Your task to perform on an android device: set the timer Image 0: 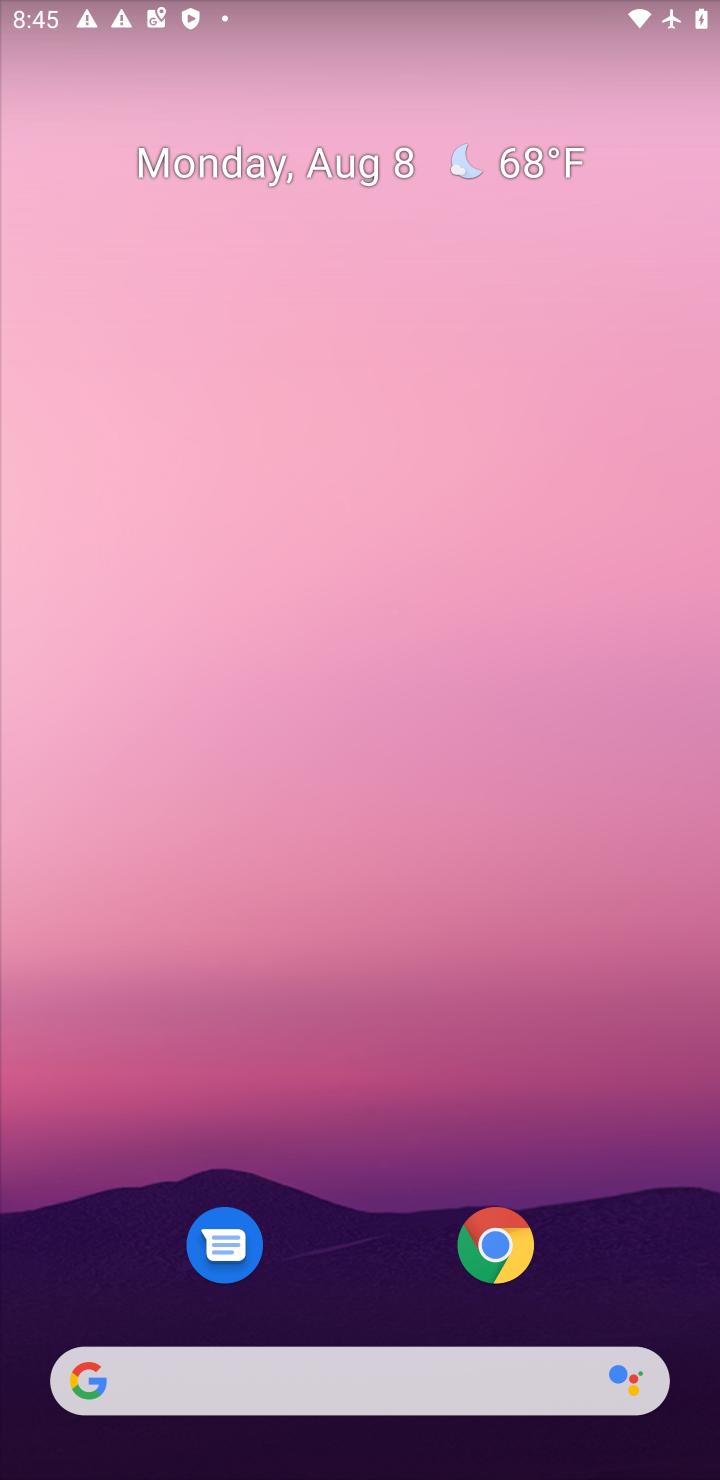
Step 0: click (355, 433)
Your task to perform on an android device: set the timer Image 1: 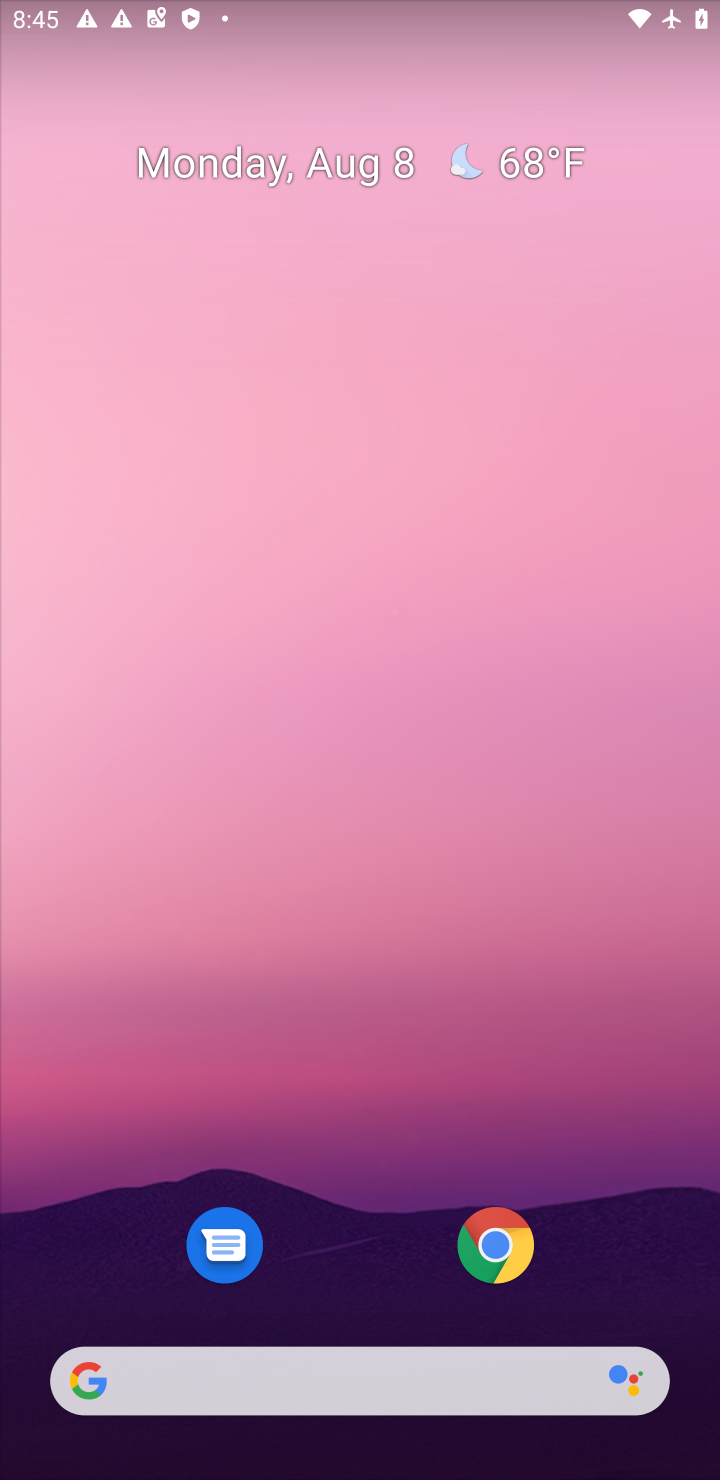
Step 1: drag from (335, 1035) to (377, 325)
Your task to perform on an android device: set the timer Image 2: 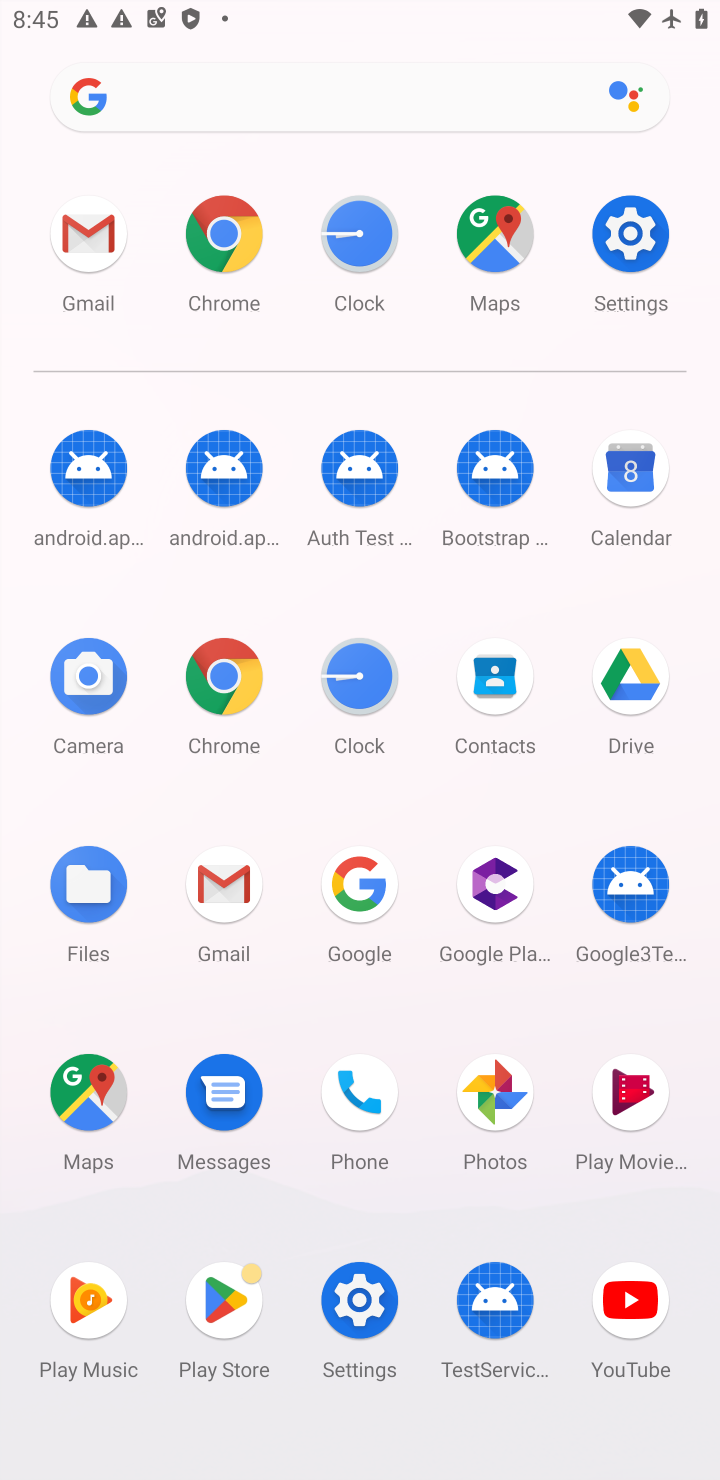
Step 2: click (356, 694)
Your task to perform on an android device: set the timer Image 3: 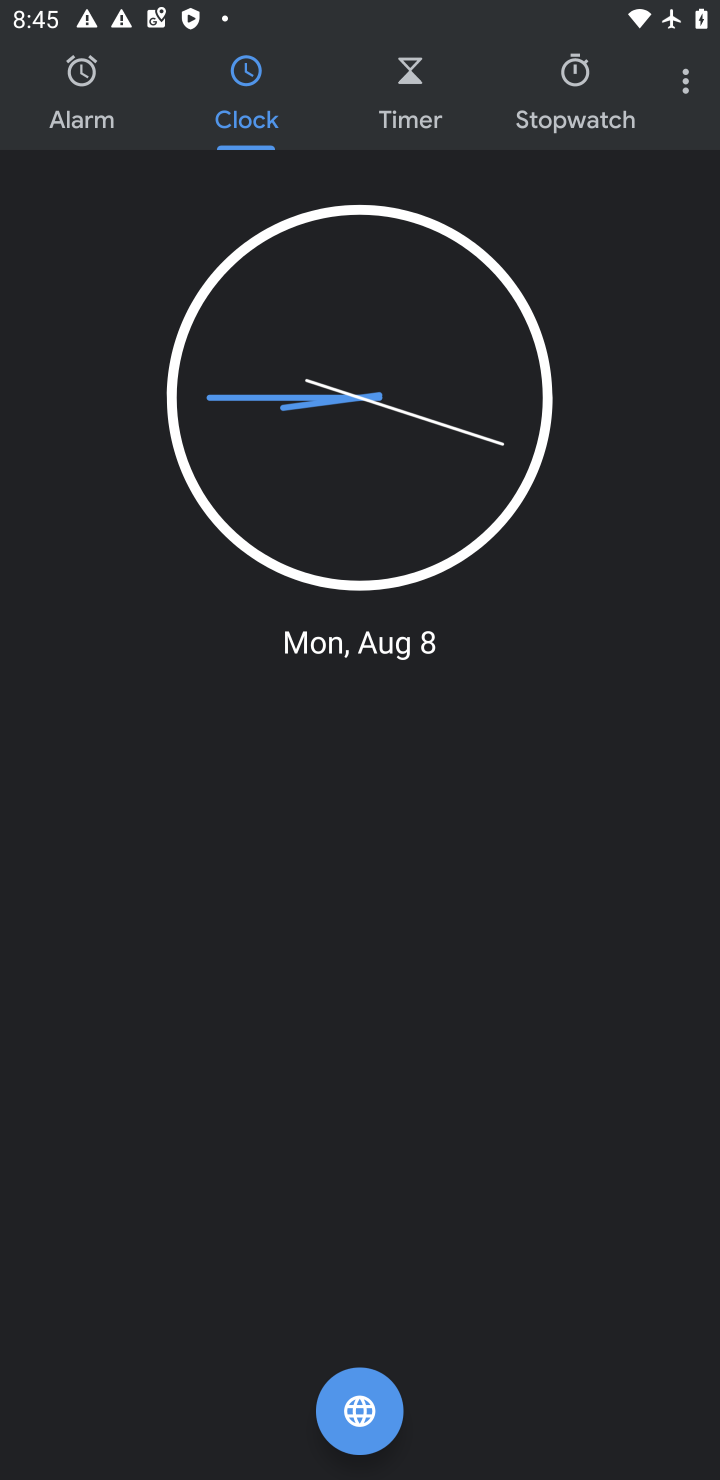
Step 3: click (410, 108)
Your task to perform on an android device: set the timer Image 4: 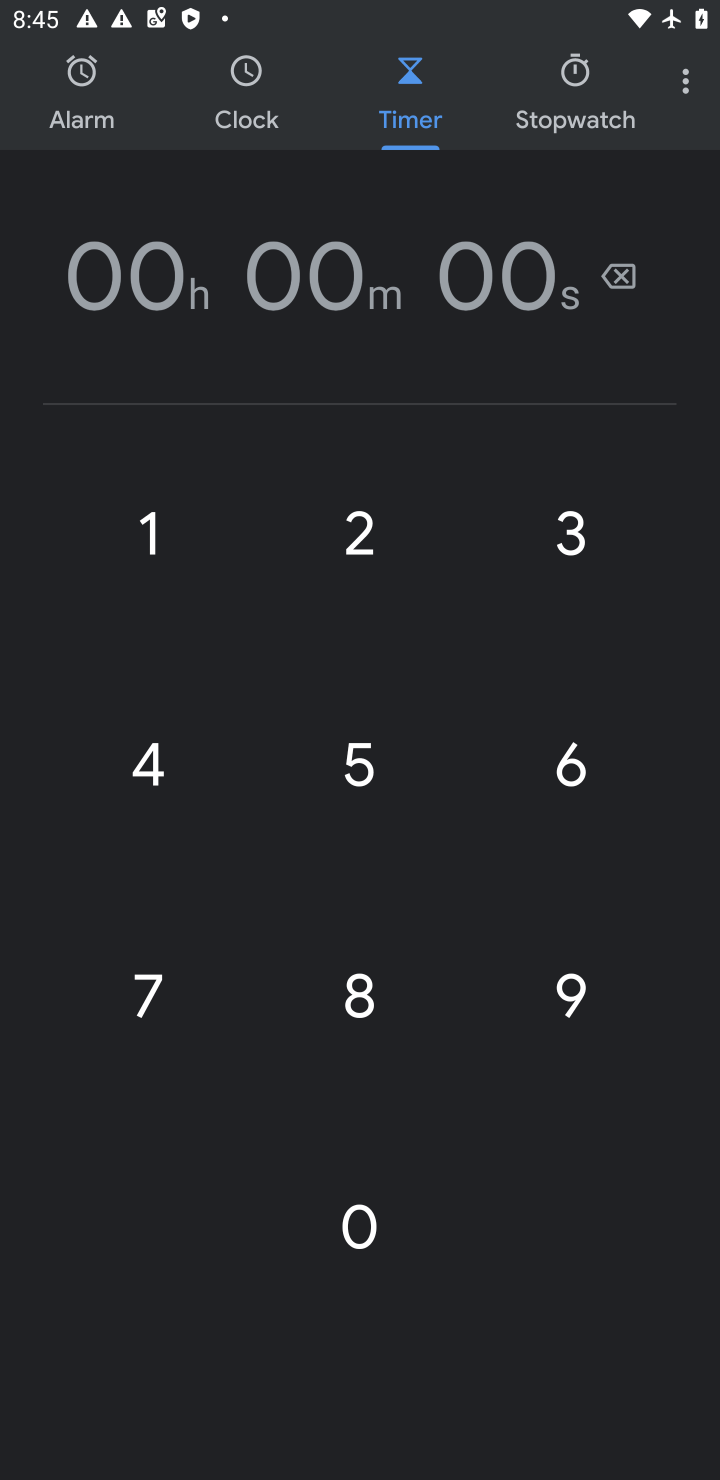
Step 4: click (150, 1000)
Your task to perform on an android device: set the timer Image 5: 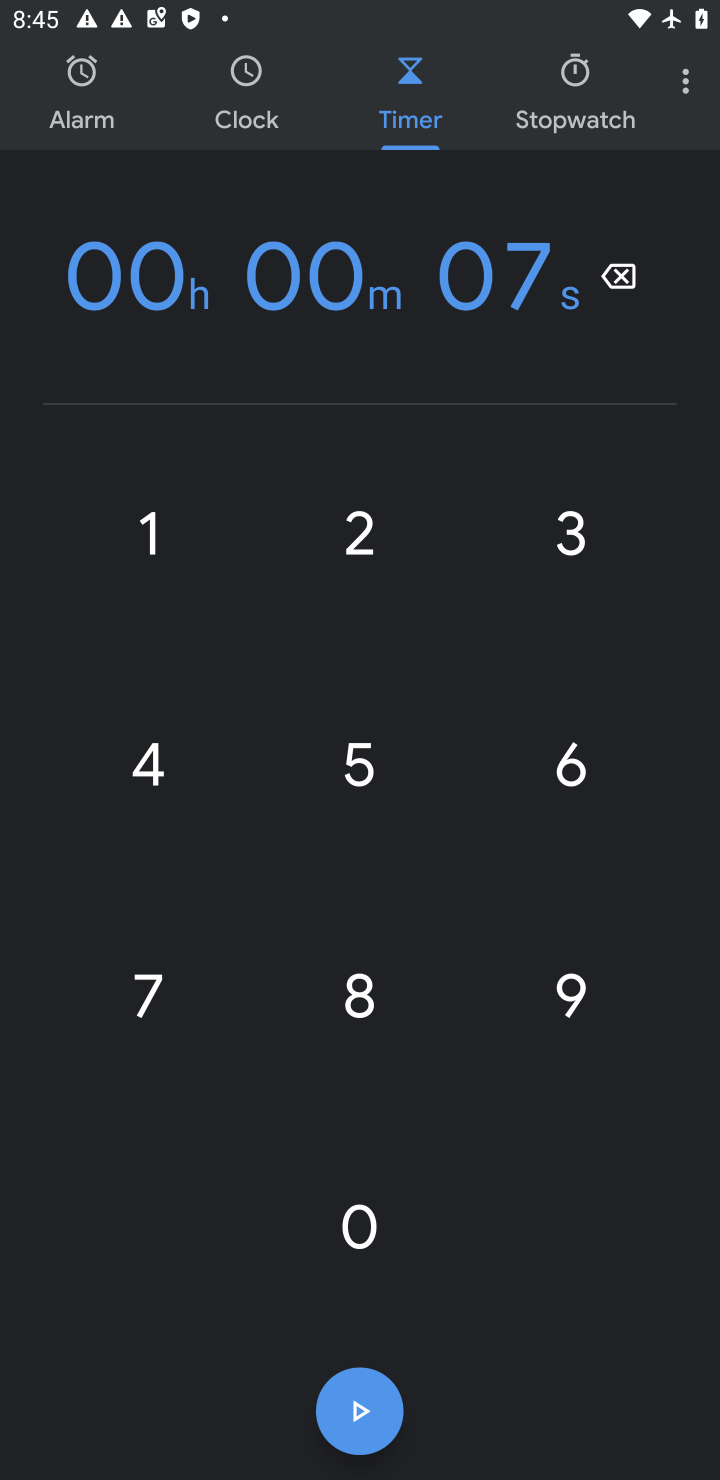
Step 5: click (358, 749)
Your task to perform on an android device: set the timer Image 6: 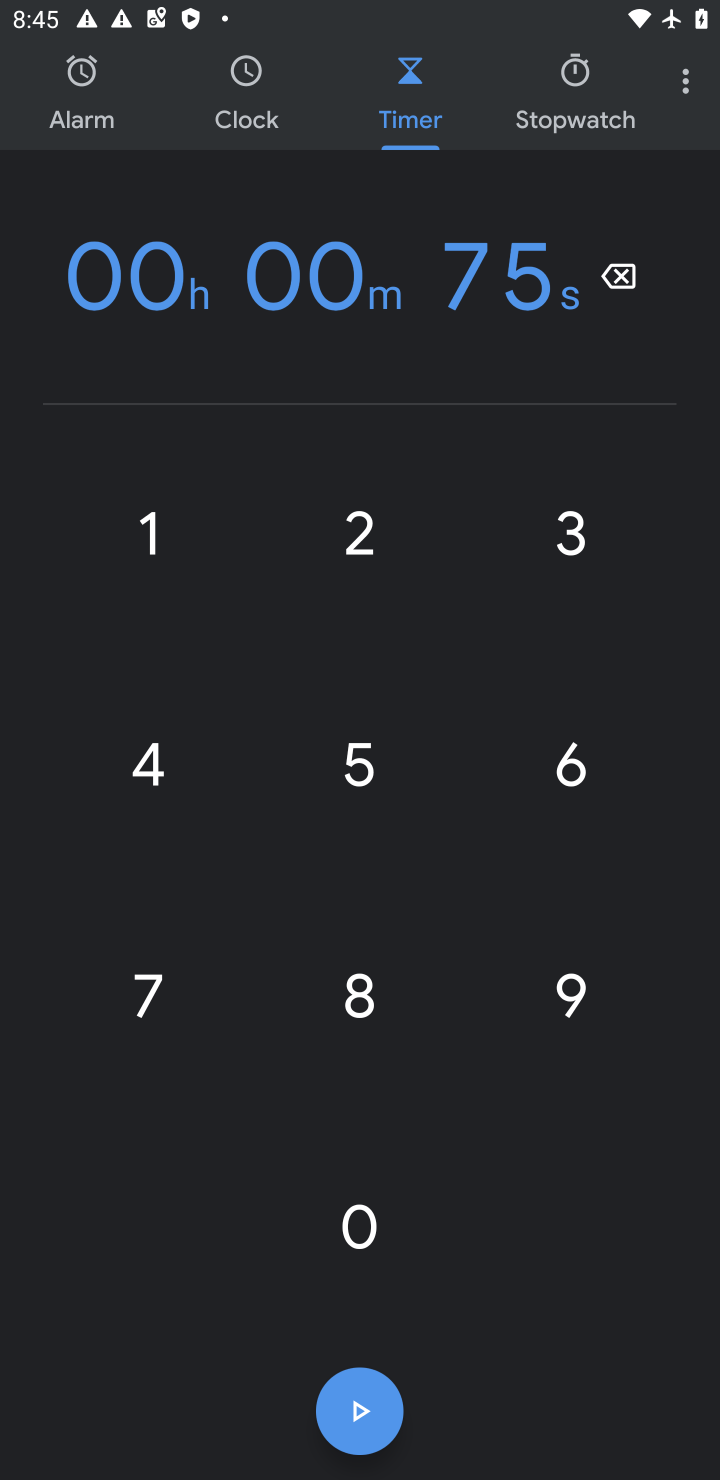
Step 6: click (597, 971)
Your task to perform on an android device: set the timer Image 7: 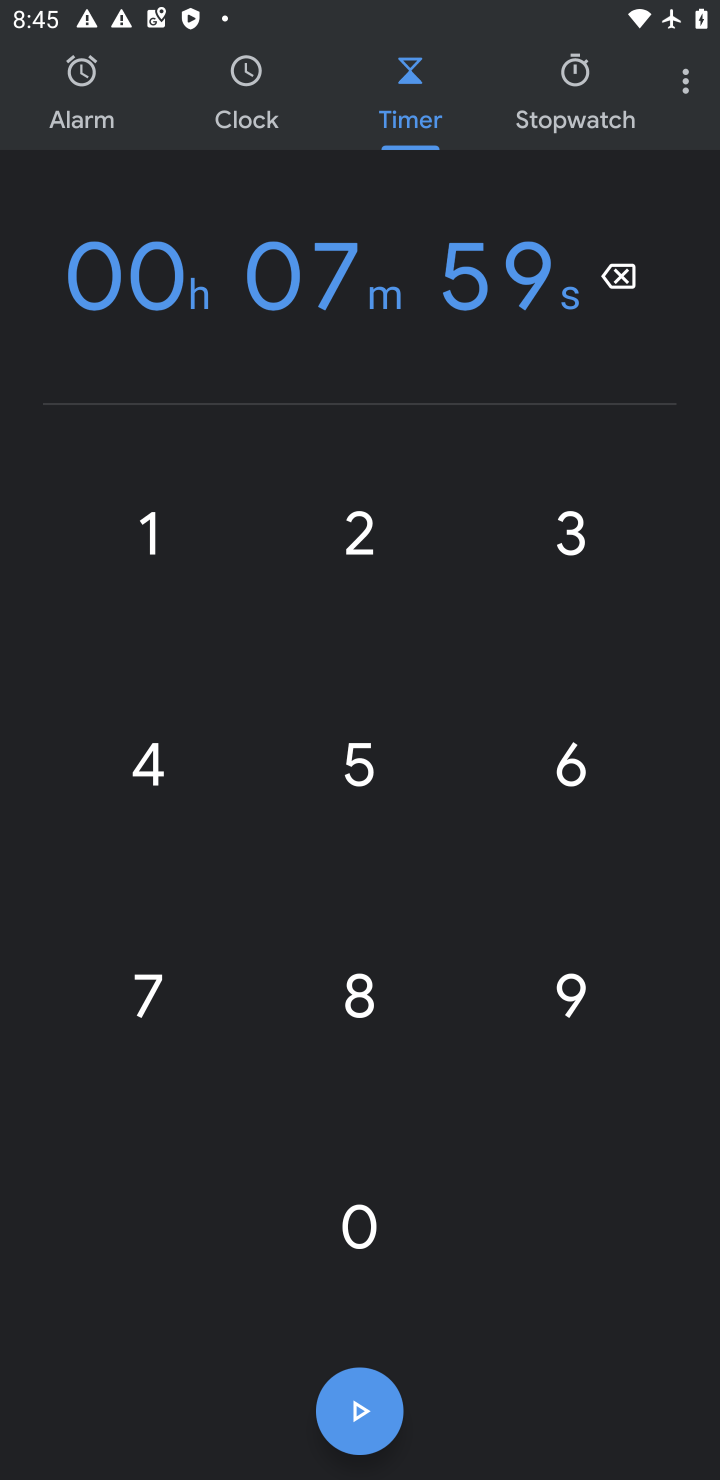
Step 7: click (350, 1404)
Your task to perform on an android device: set the timer Image 8: 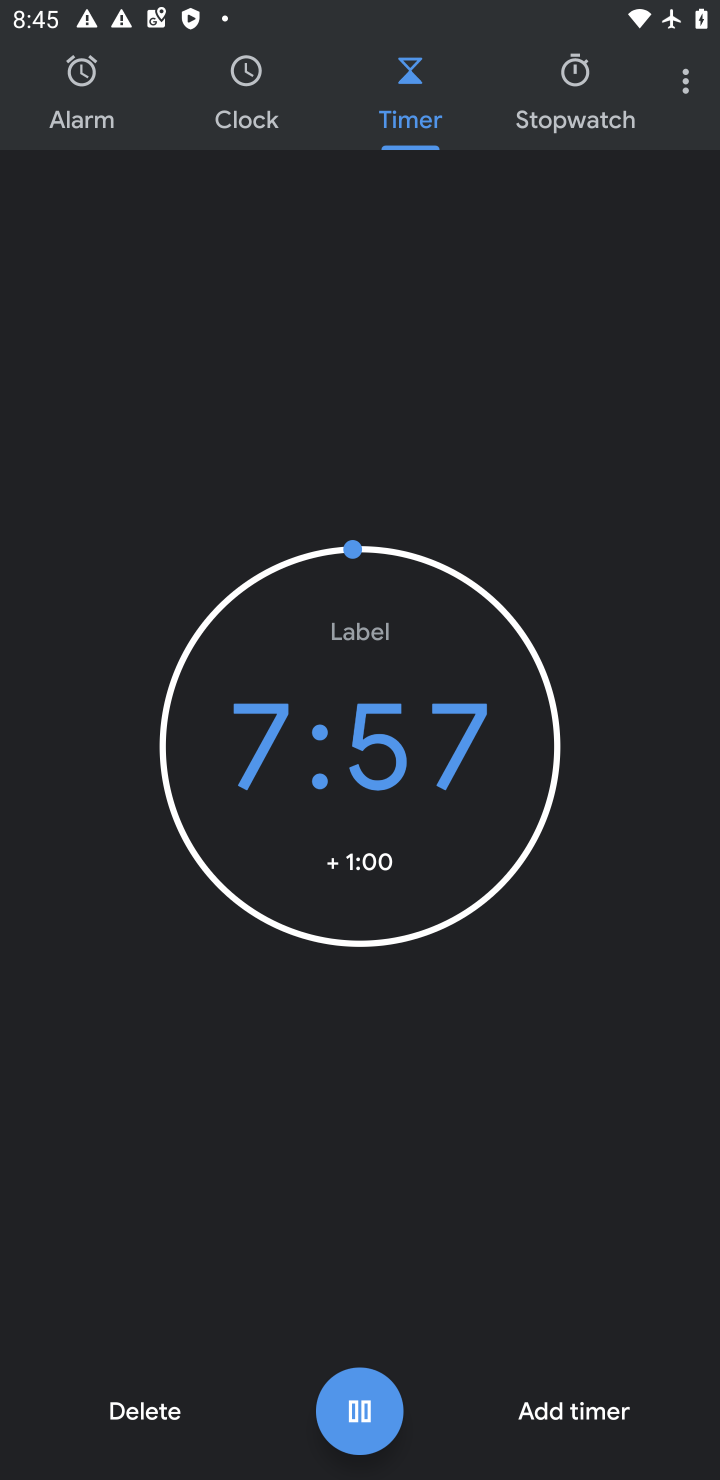
Step 8: task complete